Your task to perform on an android device: change notifications settings Image 0: 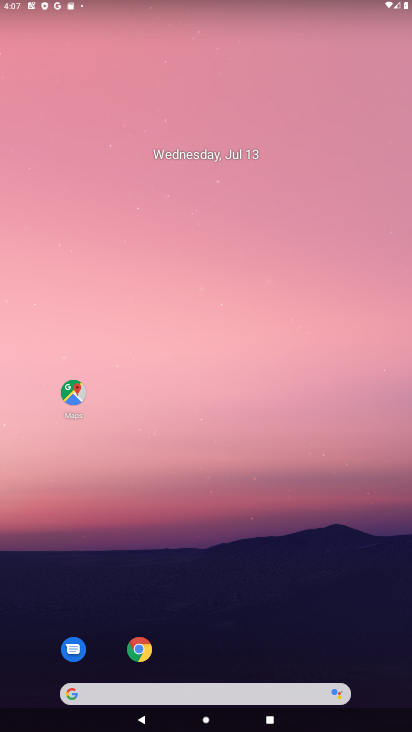
Step 0: drag from (300, 647) to (236, 84)
Your task to perform on an android device: change notifications settings Image 1: 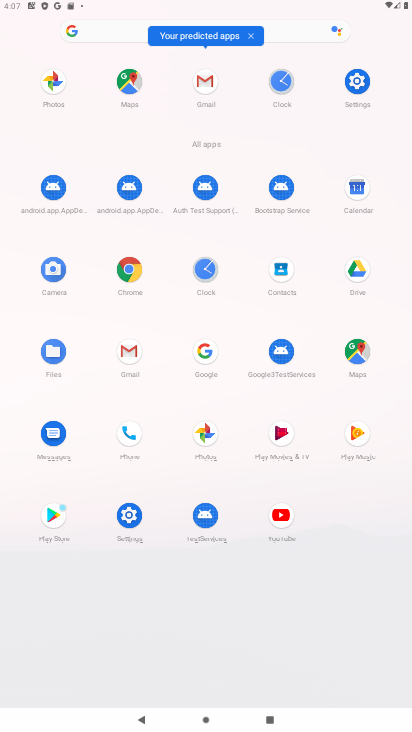
Step 1: click (368, 90)
Your task to perform on an android device: change notifications settings Image 2: 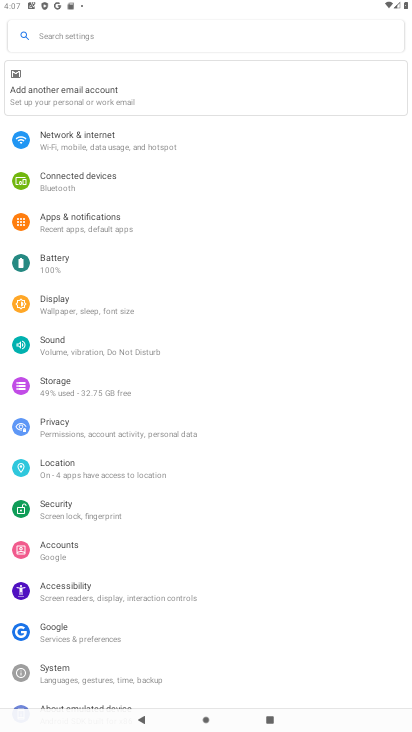
Step 2: click (224, 220)
Your task to perform on an android device: change notifications settings Image 3: 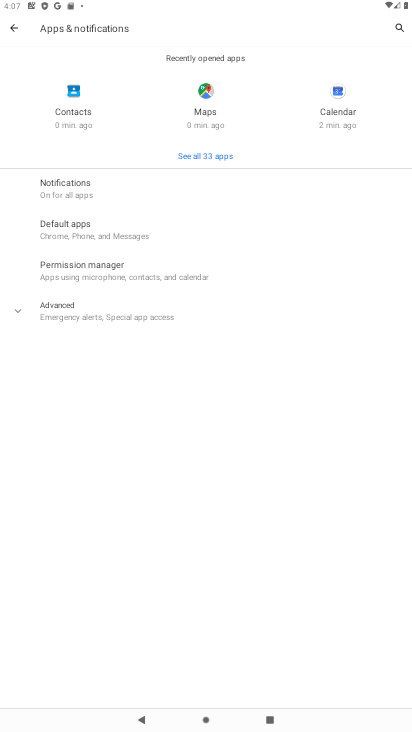
Step 3: click (179, 194)
Your task to perform on an android device: change notifications settings Image 4: 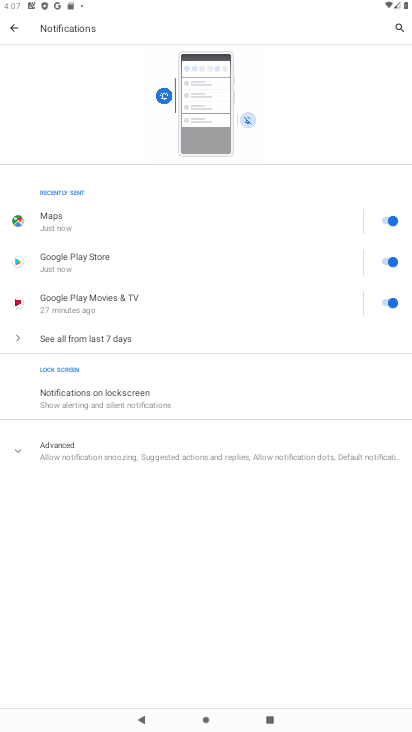
Step 4: click (142, 452)
Your task to perform on an android device: change notifications settings Image 5: 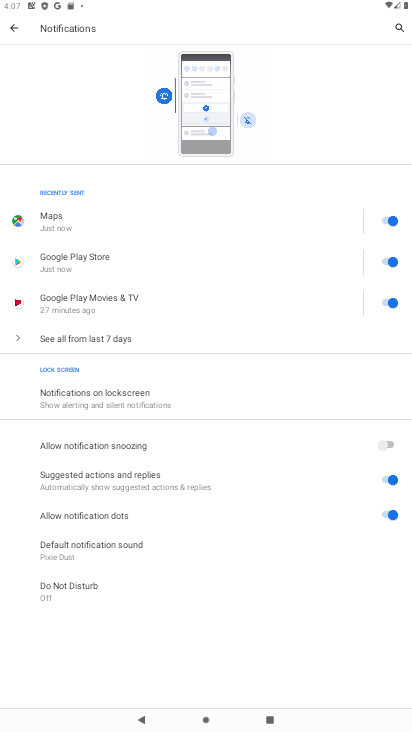
Step 5: click (388, 442)
Your task to perform on an android device: change notifications settings Image 6: 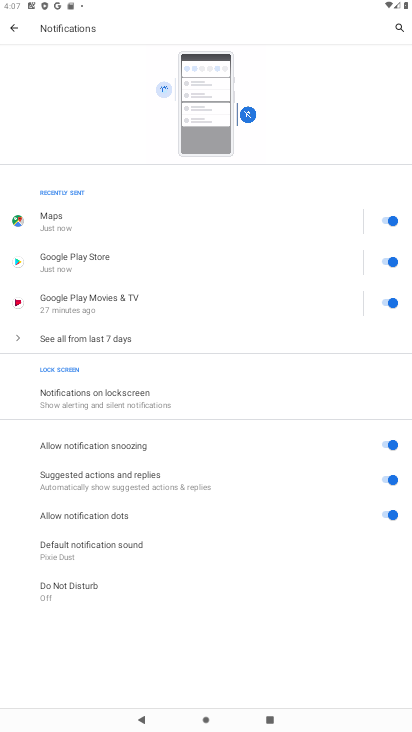
Step 6: click (391, 485)
Your task to perform on an android device: change notifications settings Image 7: 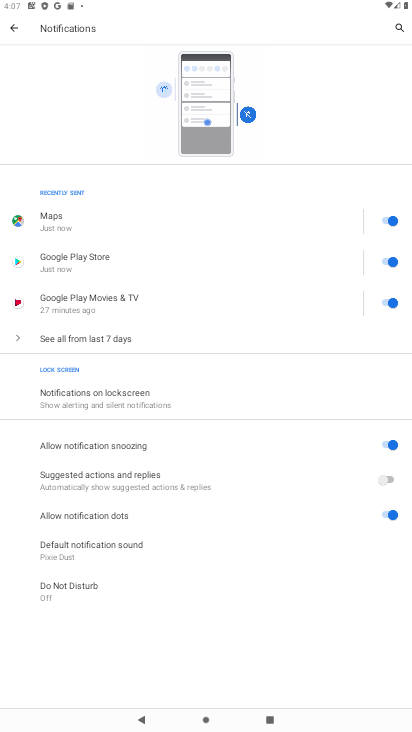
Step 7: click (393, 518)
Your task to perform on an android device: change notifications settings Image 8: 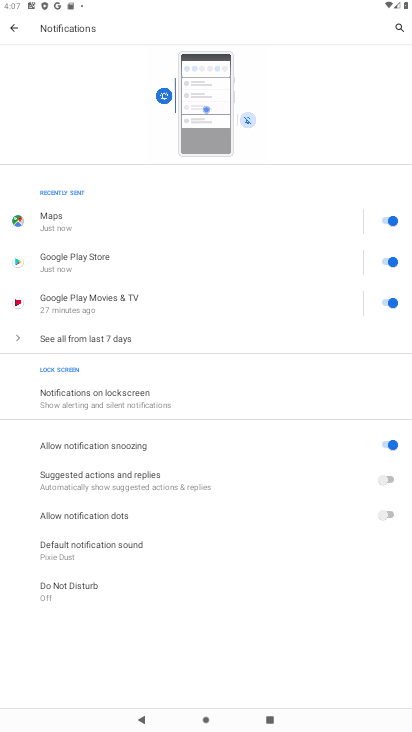
Step 8: task complete